Your task to perform on an android device: Clear the shopping cart on costco. Add "usb-a" to the cart on costco Image 0: 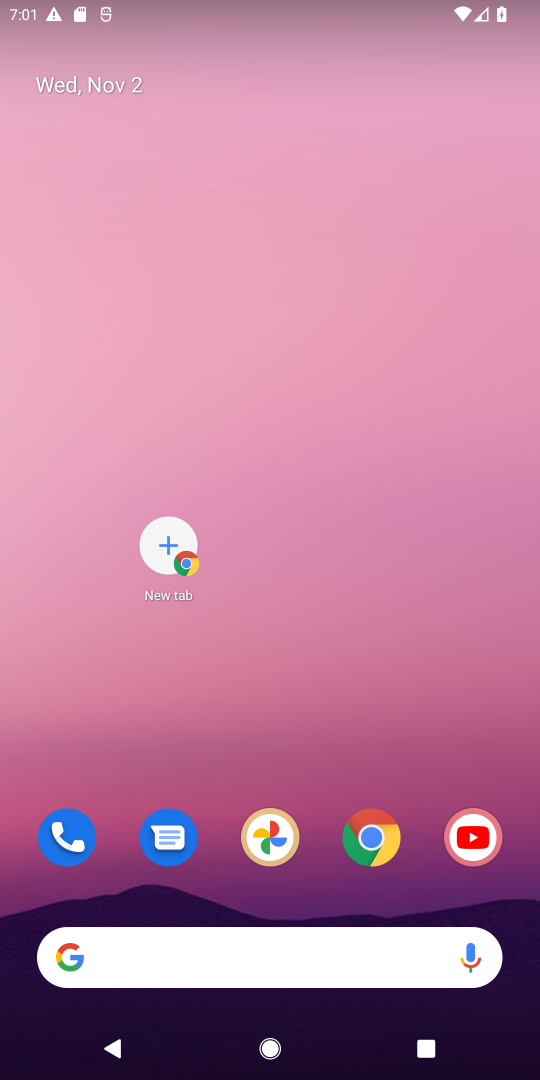
Step 0: click (172, 550)
Your task to perform on an android device: Clear the shopping cart on costco. Add "usb-a" to the cart on costco Image 1: 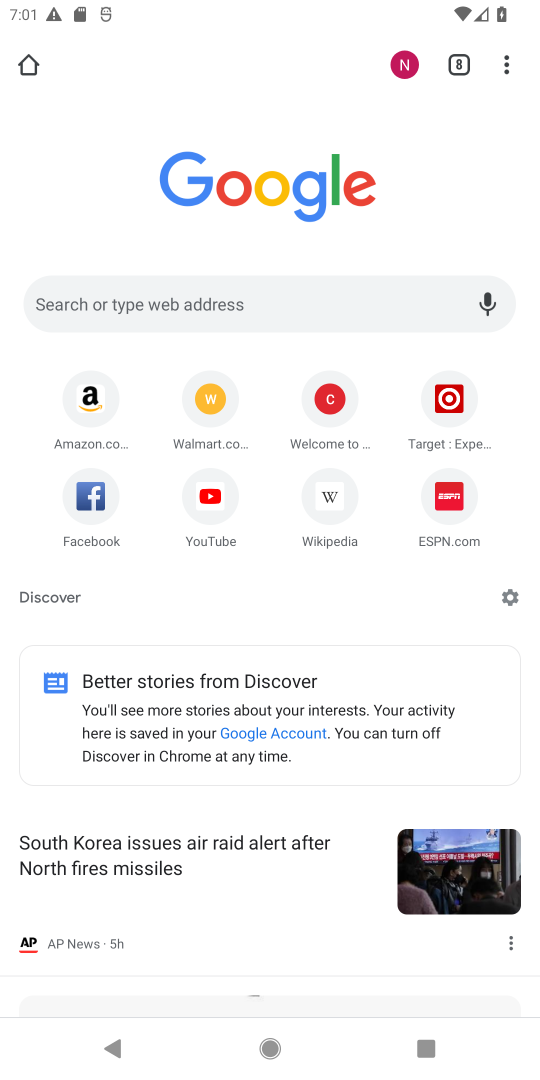
Step 1: click (304, 311)
Your task to perform on an android device: Clear the shopping cart on costco. Add "usb-a" to the cart on costco Image 2: 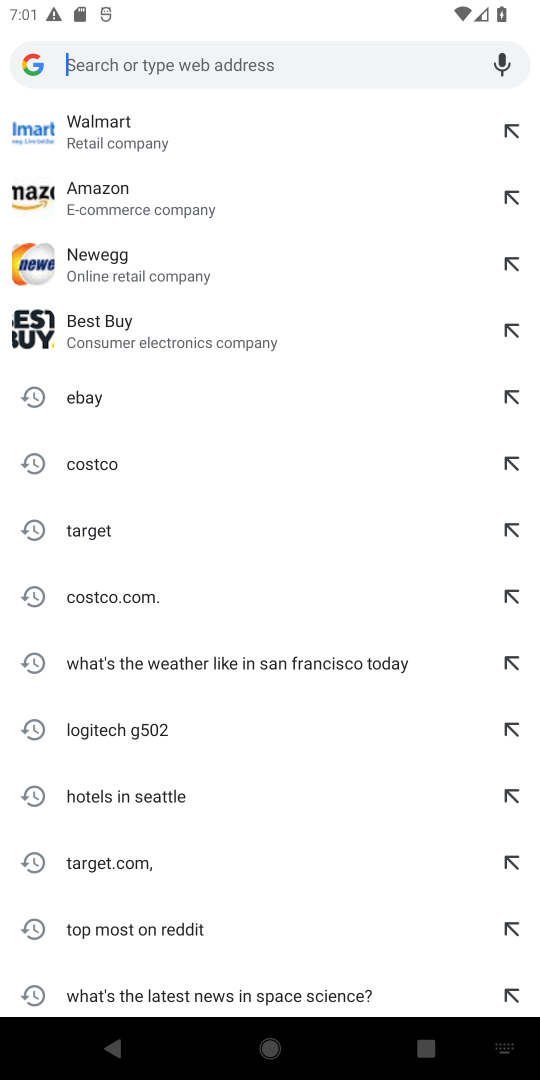
Step 2: type "costco"
Your task to perform on an android device: Clear the shopping cart on costco. Add "usb-a" to the cart on costco Image 3: 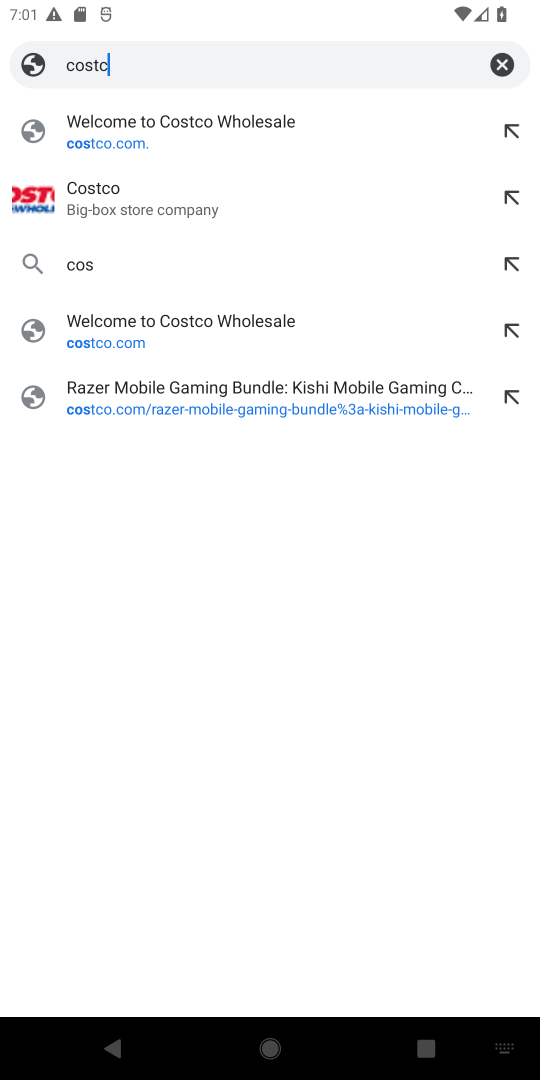
Step 3: type ""
Your task to perform on an android device: Clear the shopping cart on costco. Add "usb-a" to the cart on costco Image 4: 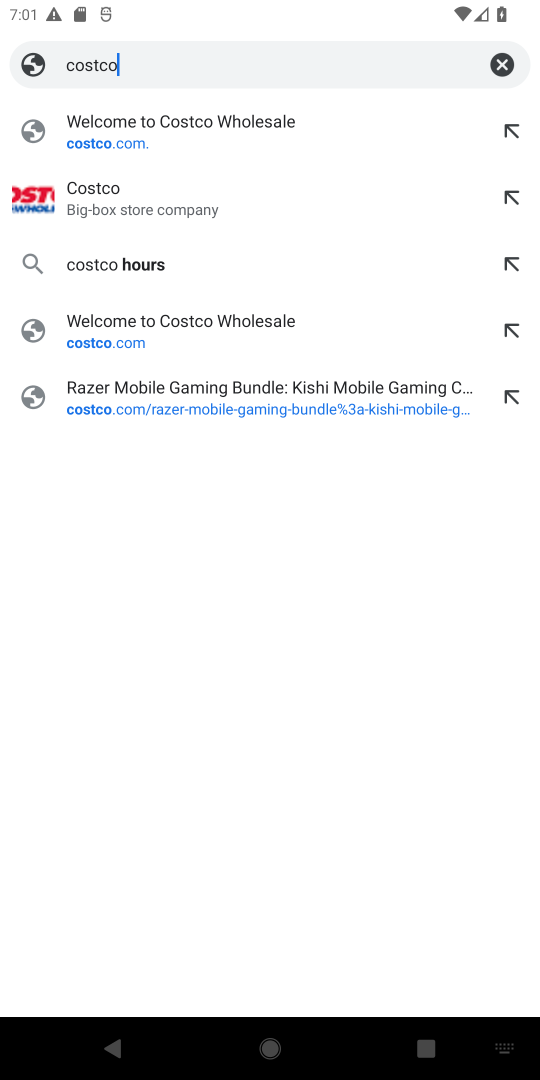
Step 4: click (201, 128)
Your task to perform on an android device: Clear the shopping cart on costco. Add "usb-a" to the cart on costco Image 5: 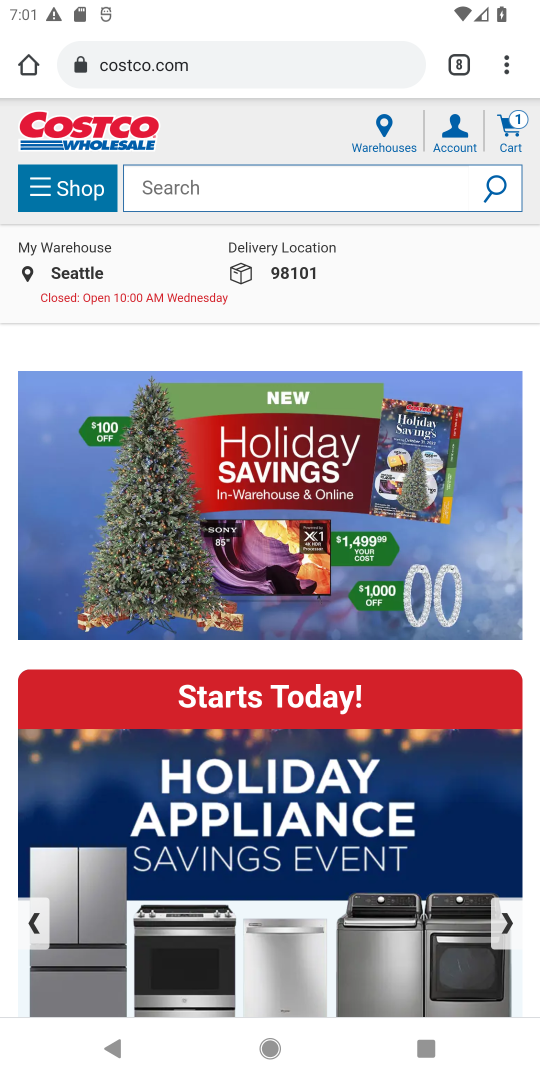
Step 5: click (507, 130)
Your task to perform on an android device: Clear the shopping cart on costco. Add "usb-a" to the cart on costco Image 6: 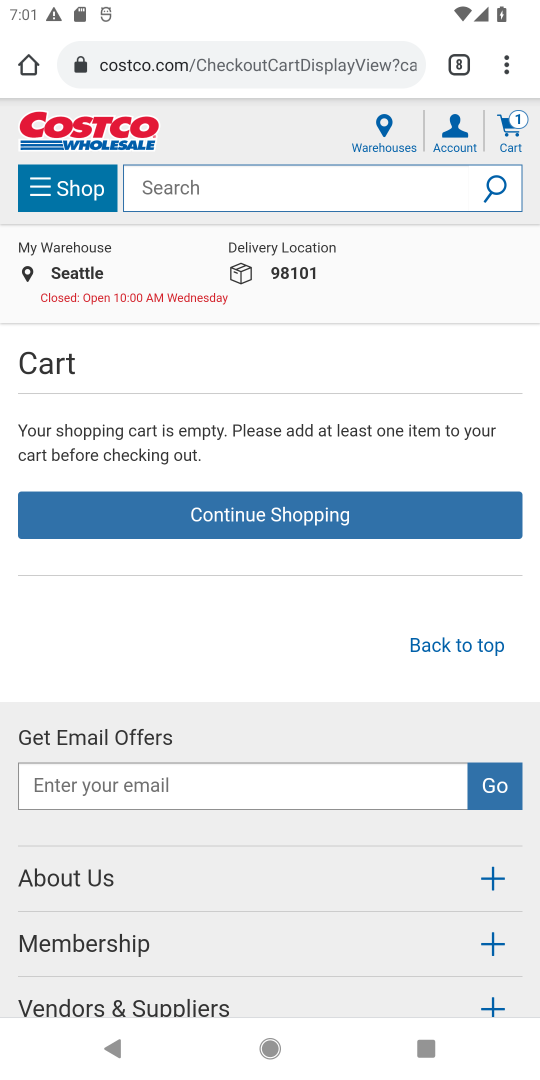
Step 6: drag from (334, 642) to (431, 1056)
Your task to perform on an android device: Clear the shopping cart on costco. Add "usb-a" to the cart on costco Image 7: 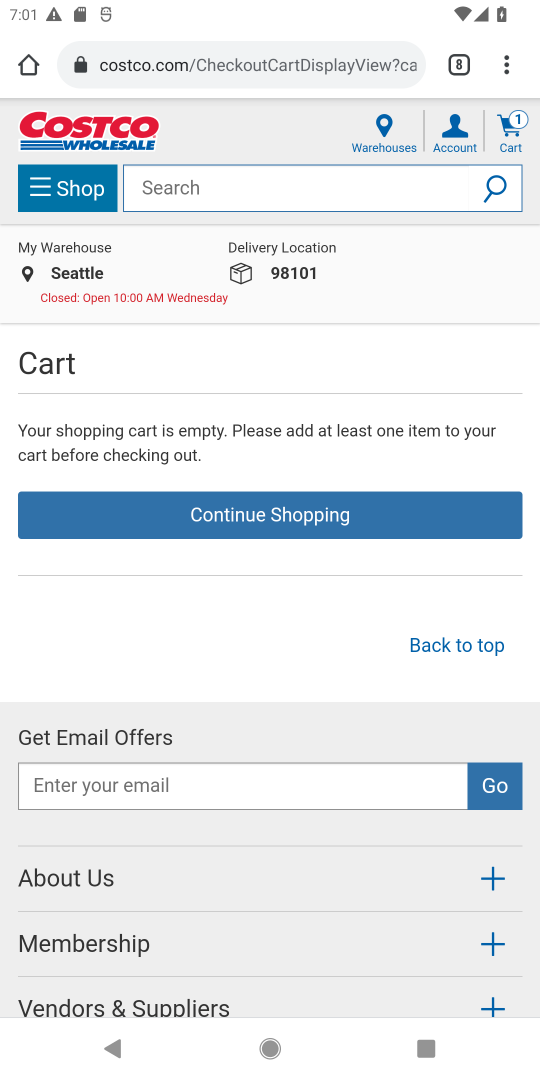
Step 7: click (295, 519)
Your task to perform on an android device: Clear the shopping cart on costco. Add "usb-a" to the cart on costco Image 8: 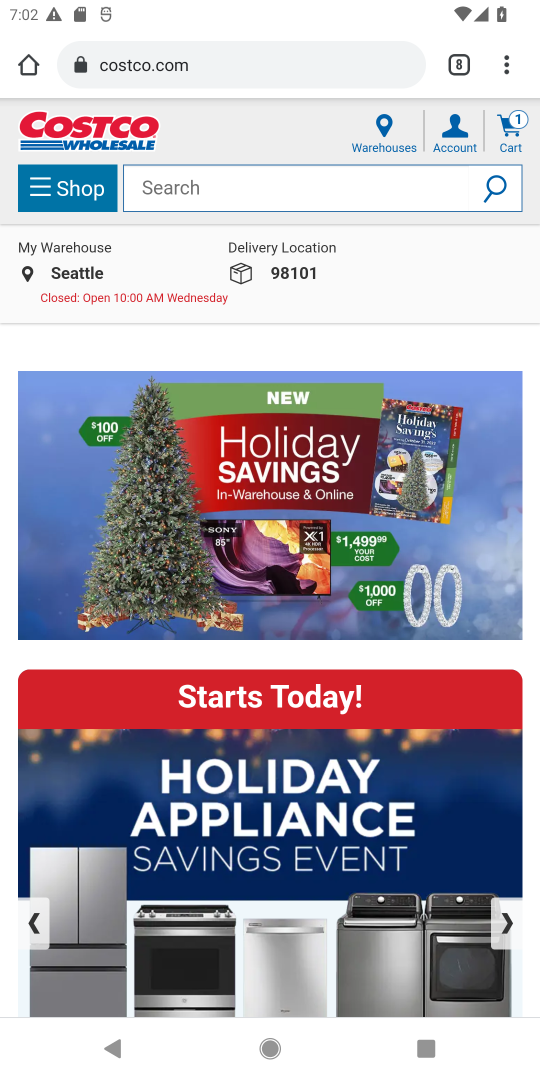
Step 8: click (260, 198)
Your task to perform on an android device: Clear the shopping cart on costco. Add "usb-a" to the cart on costco Image 9: 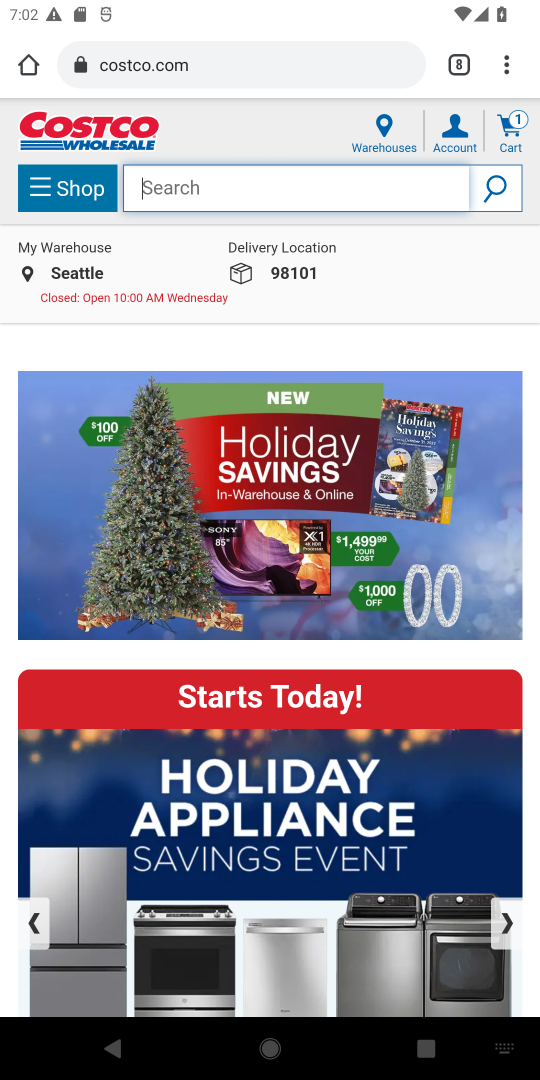
Step 9: type "usb-a"
Your task to perform on an android device: Clear the shopping cart on costco. Add "usb-a" to the cart on costco Image 10: 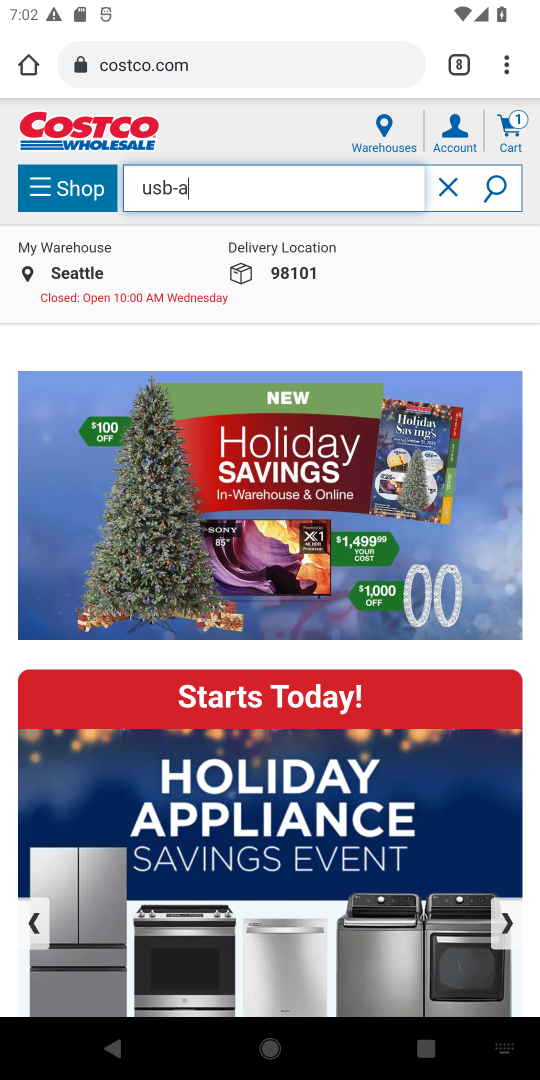
Step 10: type ""
Your task to perform on an android device: Clear the shopping cart on costco. Add "usb-a" to the cart on costco Image 11: 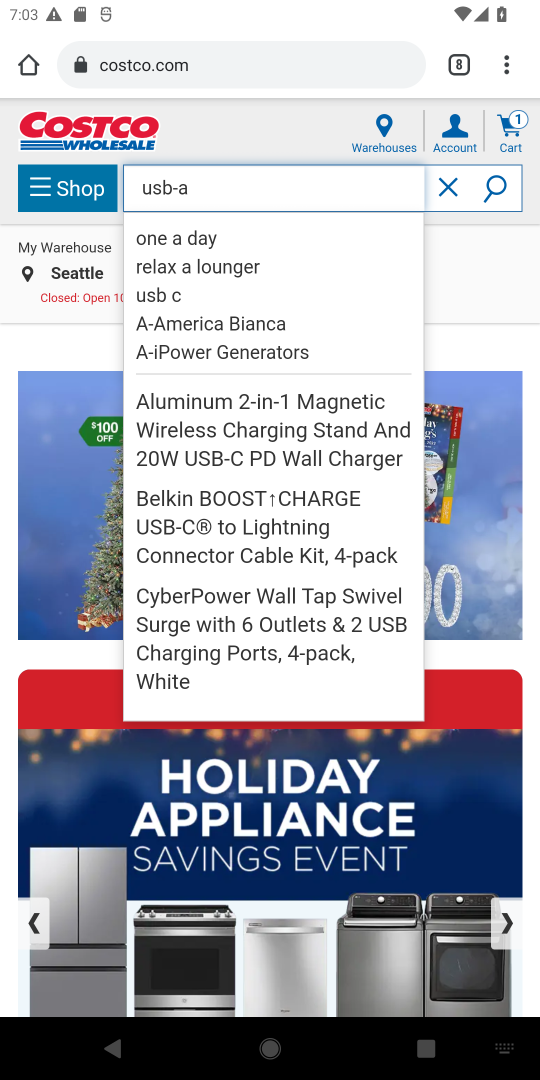
Step 11: click (177, 303)
Your task to perform on an android device: Clear the shopping cart on costco. Add "usb-a" to the cart on costco Image 12: 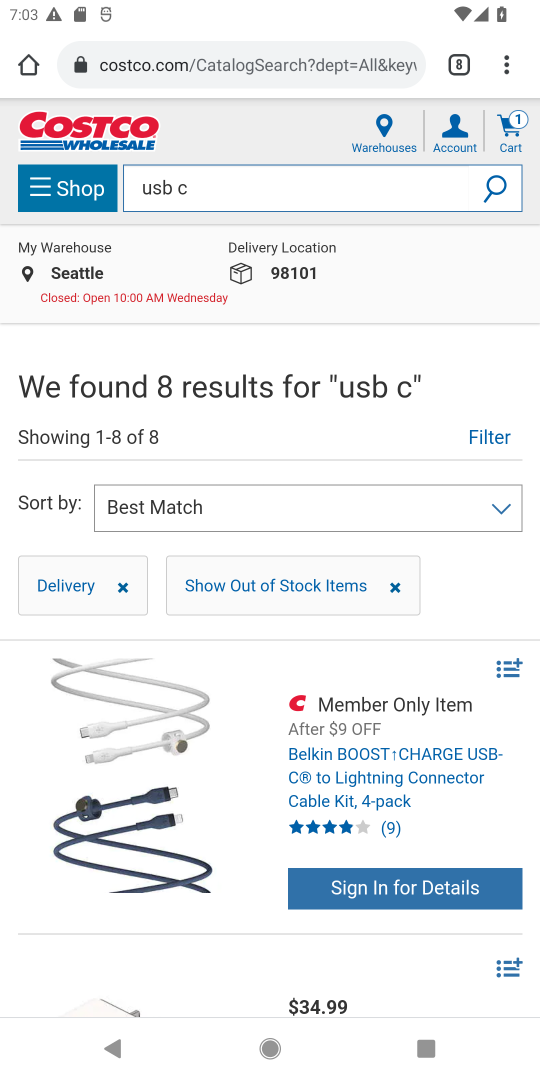
Step 12: drag from (192, 766) to (255, 449)
Your task to perform on an android device: Clear the shopping cart on costco. Add "usb-a" to the cart on costco Image 13: 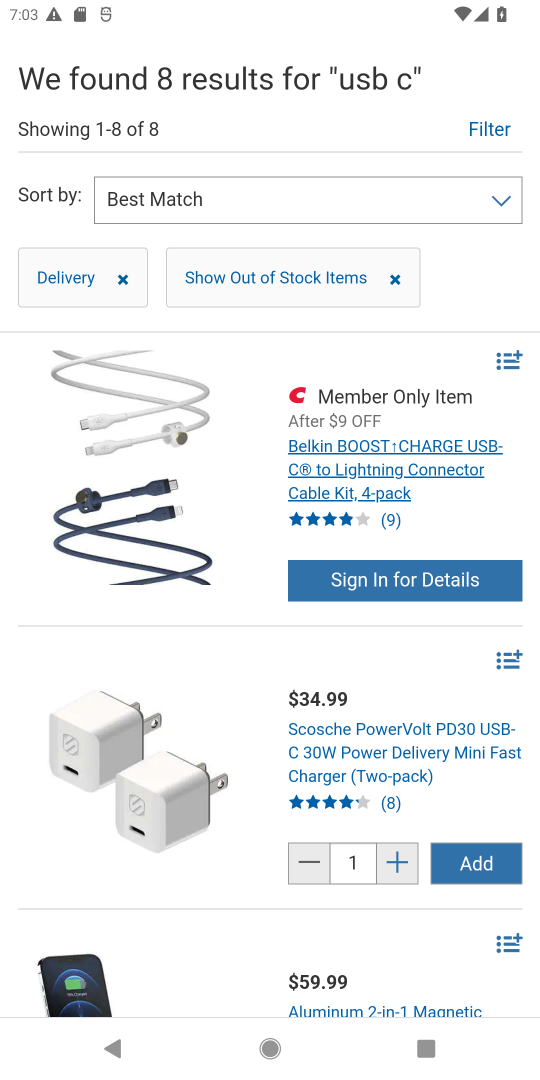
Step 13: drag from (316, 883) to (370, 584)
Your task to perform on an android device: Clear the shopping cart on costco. Add "usb-a" to the cart on costco Image 14: 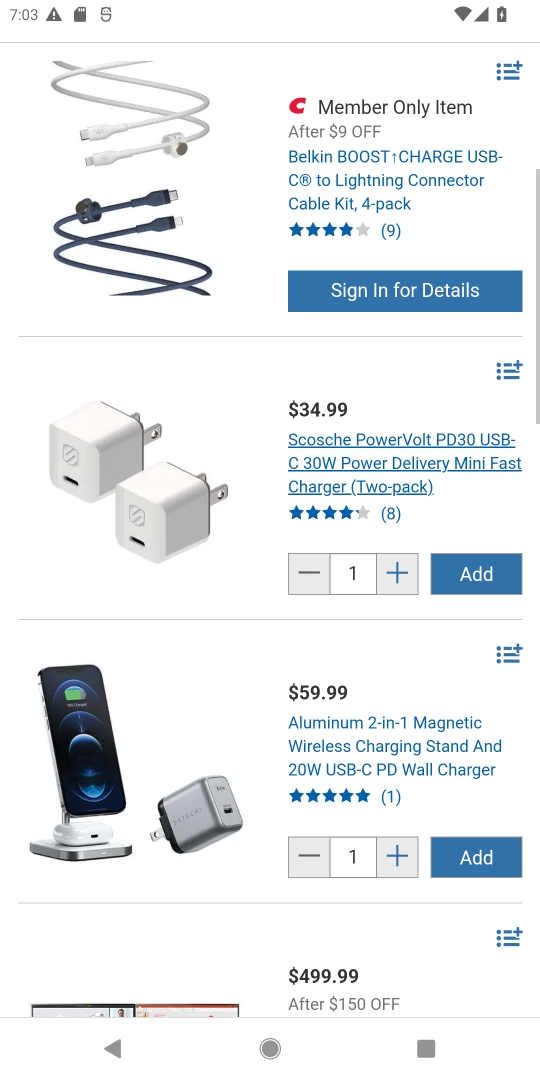
Step 14: drag from (316, 796) to (379, 542)
Your task to perform on an android device: Clear the shopping cart on costco. Add "usb-a" to the cart on costco Image 15: 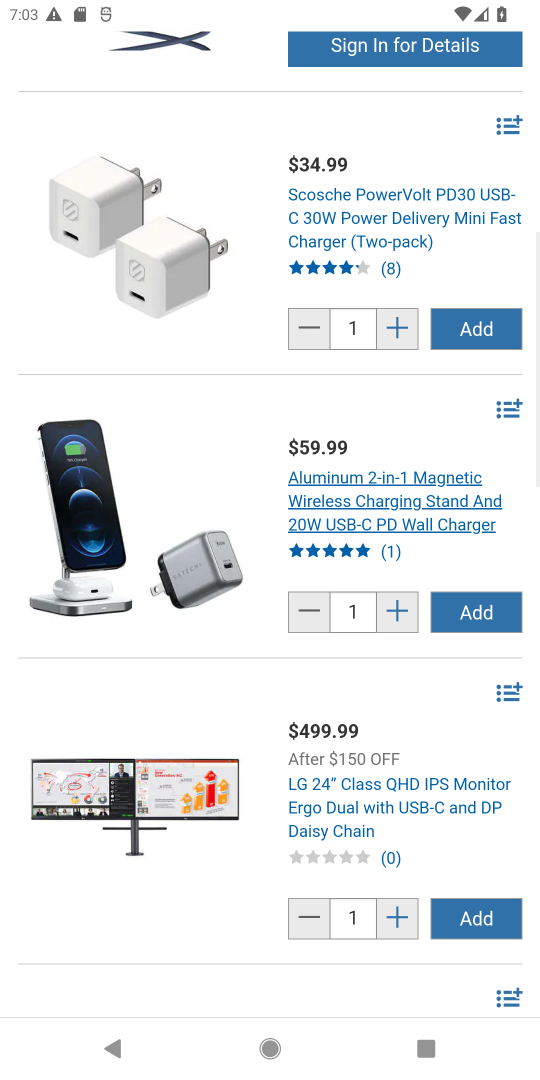
Step 15: drag from (269, 832) to (347, 600)
Your task to perform on an android device: Clear the shopping cart on costco. Add "usb-a" to the cart on costco Image 16: 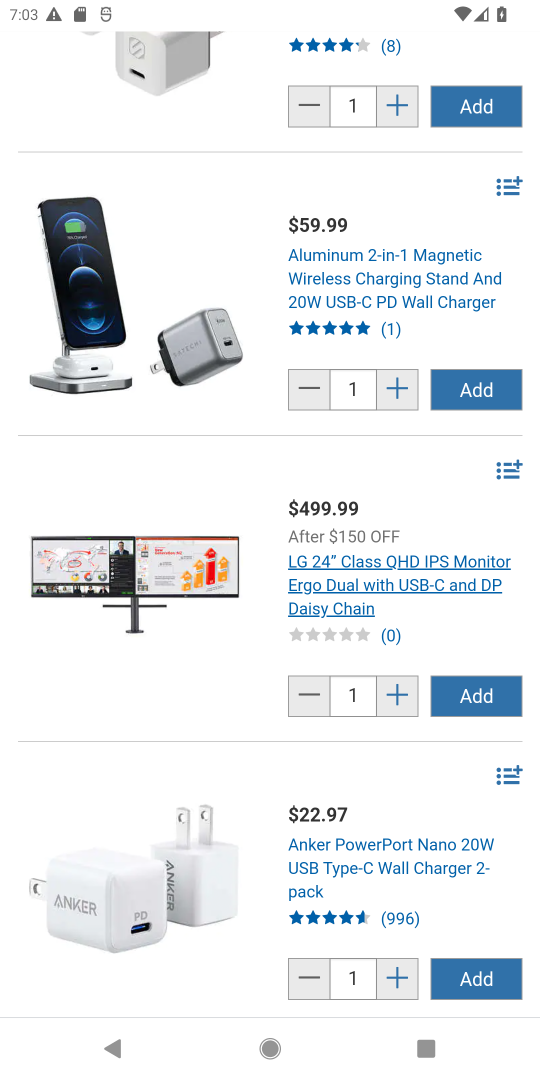
Step 16: click (404, 988)
Your task to perform on an android device: Clear the shopping cart on costco. Add "usb-a" to the cart on costco Image 17: 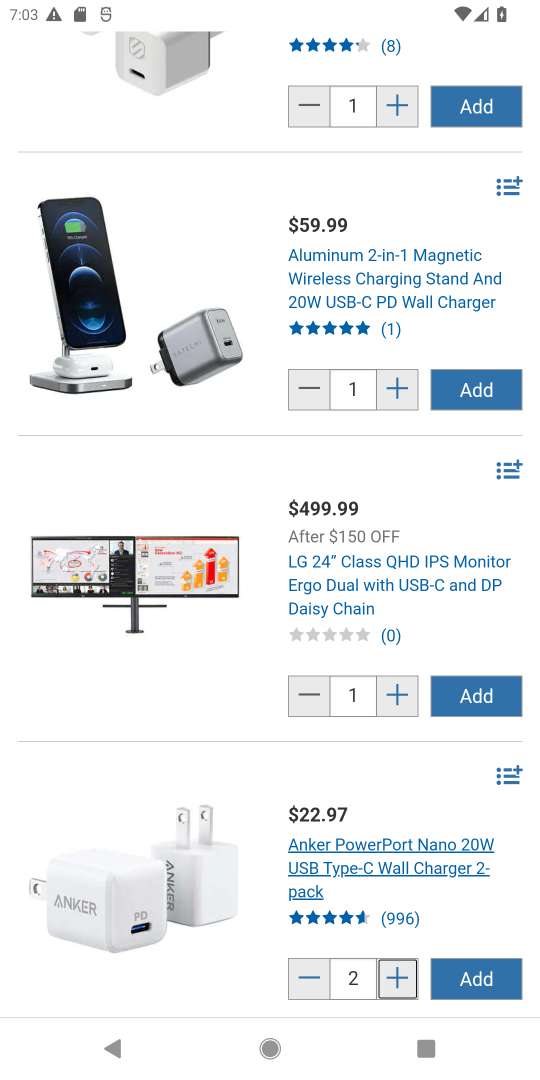
Step 17: click (311, 989)
Your task to perform on an android device: Clear the shopping cart on costco. Add "usb-a" to the cart on costco Image 18: 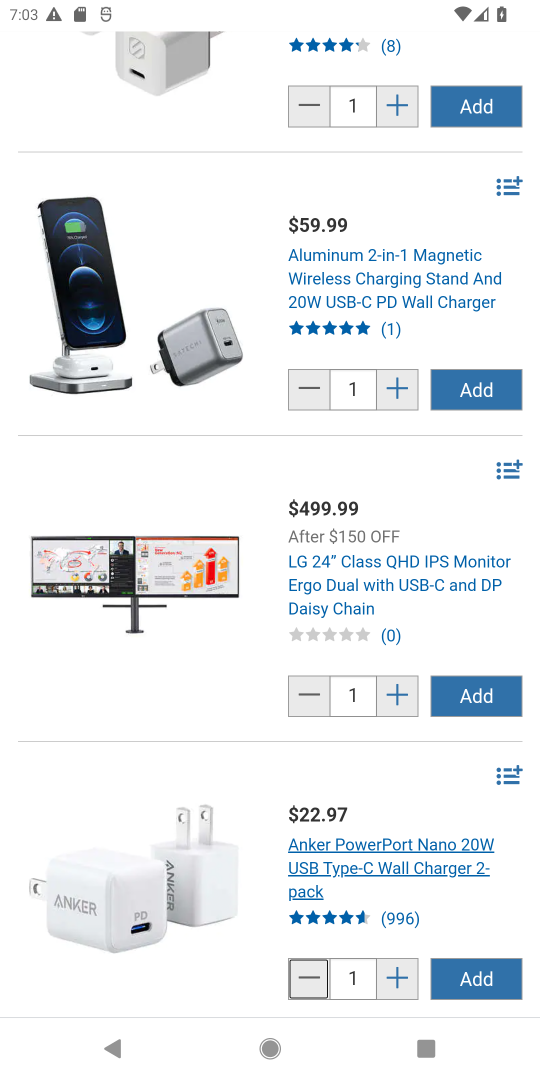
Step 18: drag from (279, 545) to (263, 1034)
Your task to perform on an android device: Clear the shopping cart on costco. Add "usb-a" to the cart on costco Image 19: 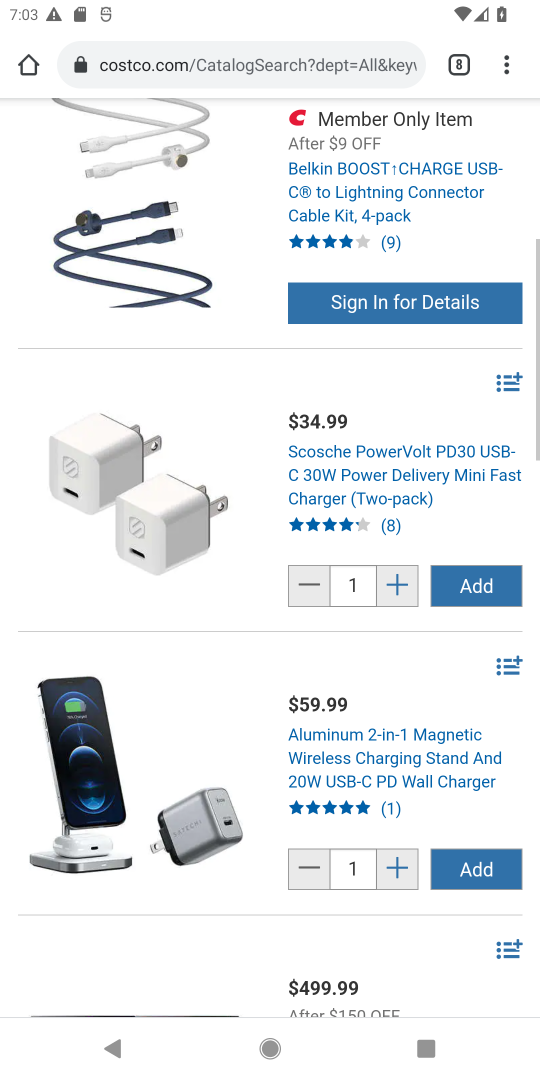
Step 19: drag from (311, 511) to (277, 1077)
Your task to perform on an android device: Clear the shopping cart on costco. Add "usb-a" to the cart on costco Image 20: 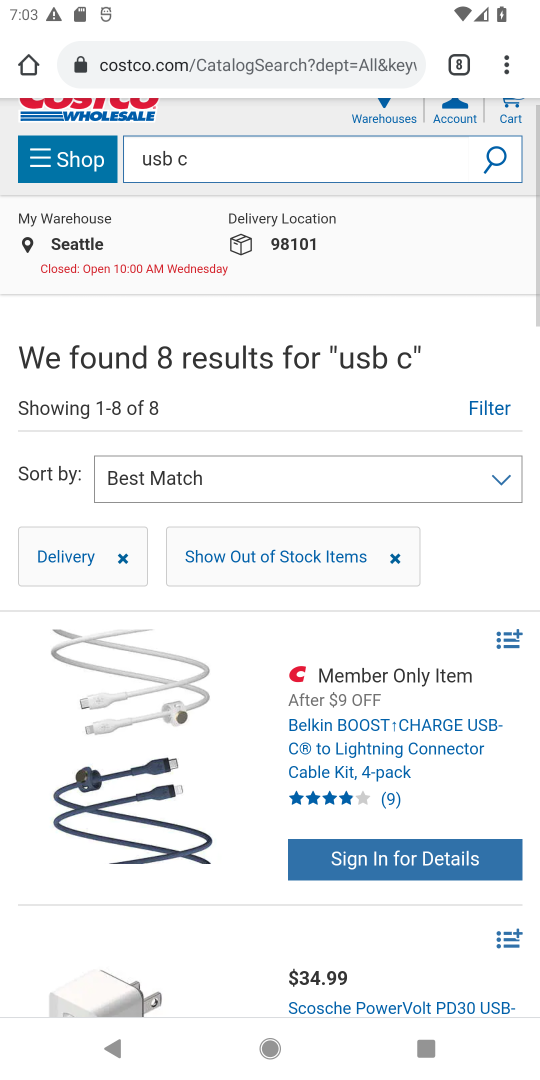
Step 20: drag from (331, 632) to (333, 1056)
Your task to perform on an android device: Clear the shopping cart on costco. Add "usb-a" to the cart on costco Image 21: 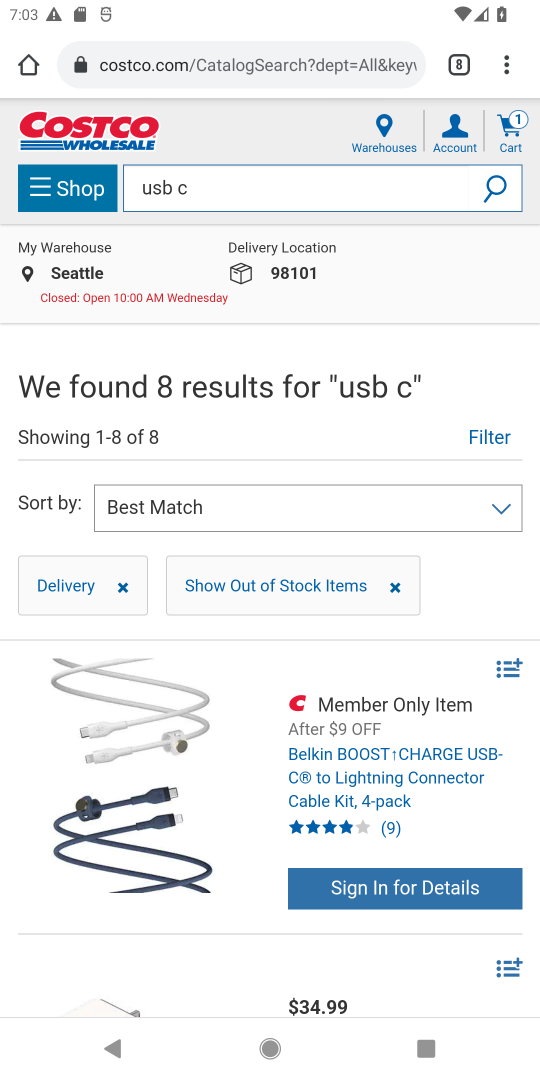
Step 21: click (510, 131)
Your task to perform on an android device: Clear the shopping cart on costco. Add "usb-a" to the cart on costco Image 22: 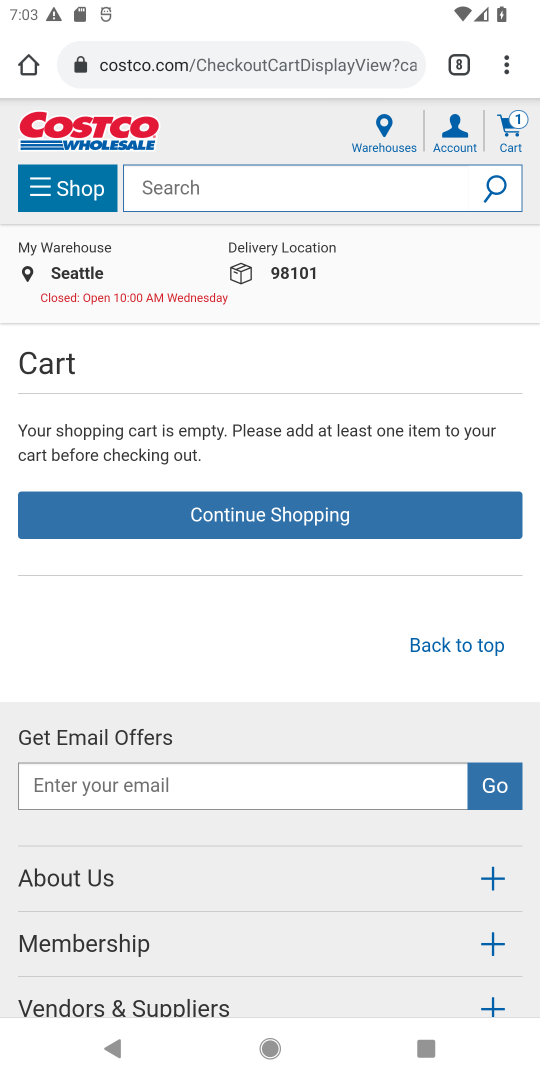
Step 22: press back button
Your task to perform on an android device: Clear the shopping cart on costco. Add "usb-a" to the cart on costco Image 23: 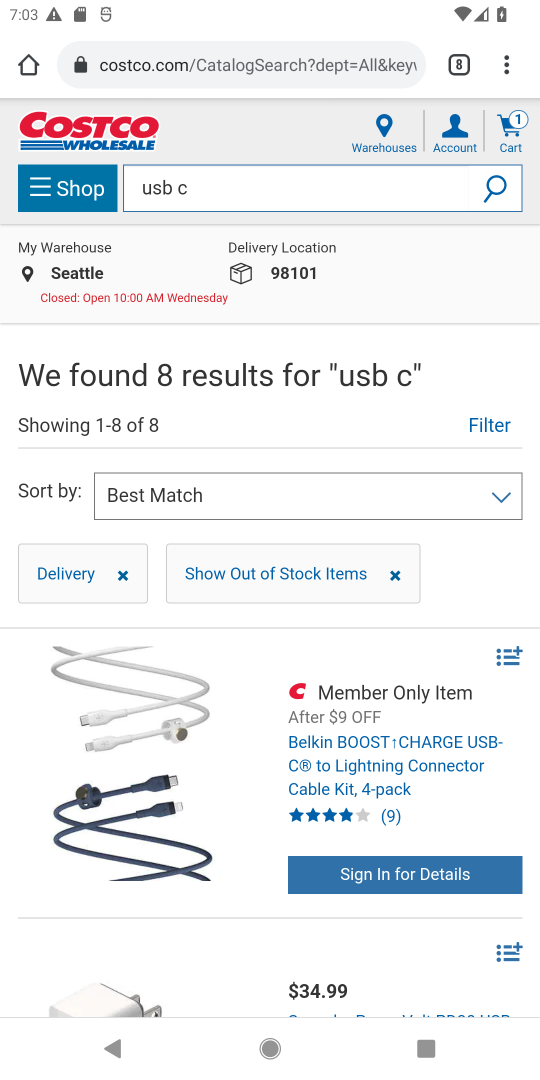
Step 23: drag from (252, 787) to (264, 453)
Your task to perform on an android device: Clear the shopping cart on costco. Add "usb-a" to the cart on costco Image 24: 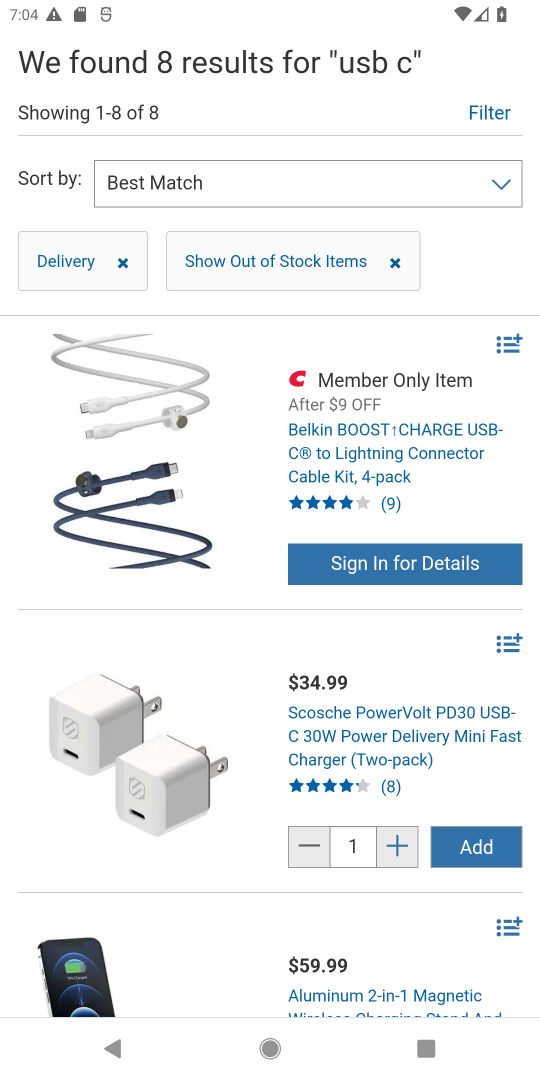
Step 24: drag from (307, 874) to (399, 456)
Your task to perform on an android device: Clear the shopping cart on costco. Add "usb-a" to the cart on costco Image 25: 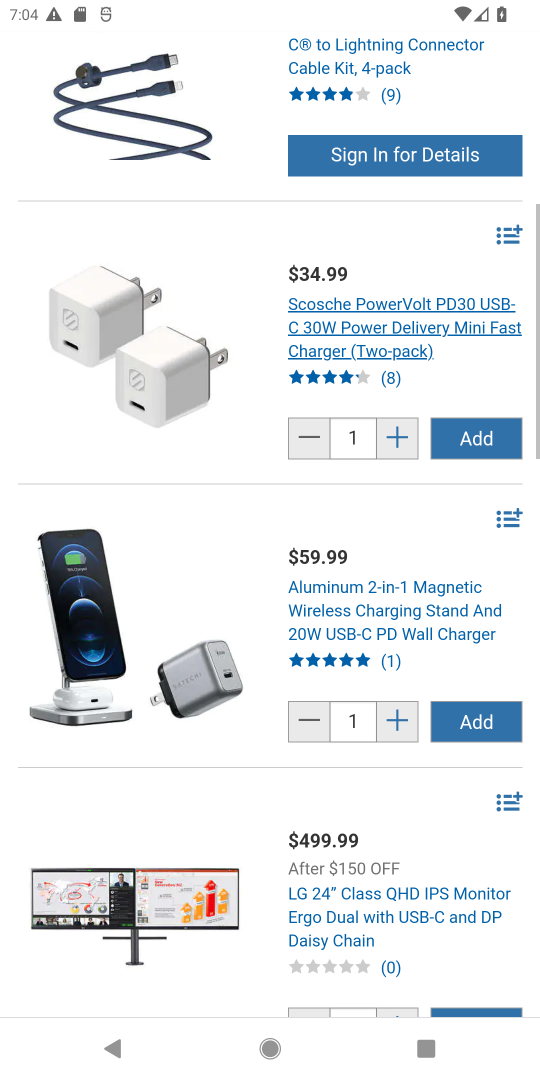
Step 25: drag from (323, 885) to (366, 453)
Your task to perform on an android device: Clear the shopping cart on costco. Add "usb-a" to the cart on costco Image 26: 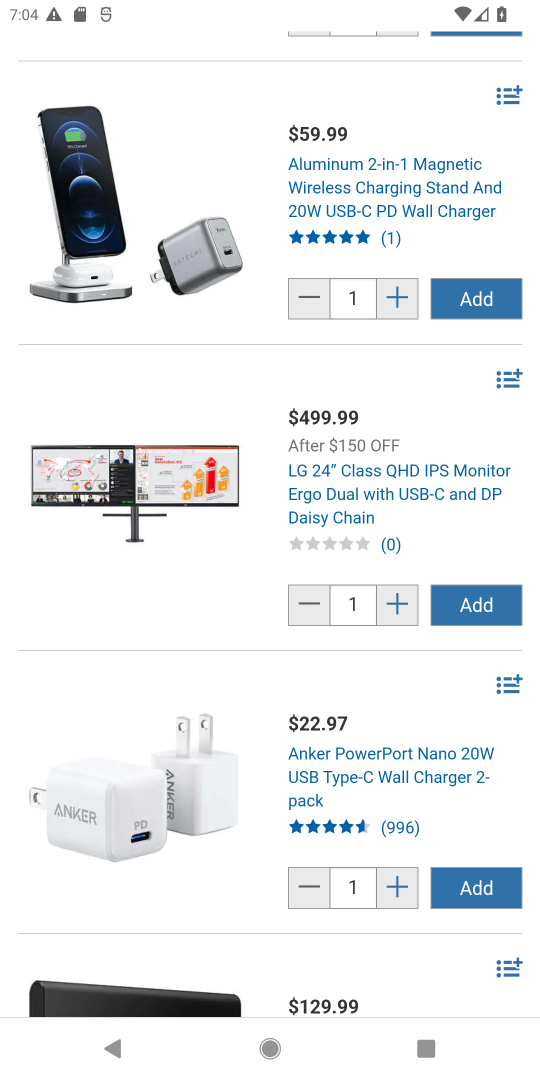
Step 26: click (334, 743)
Your task to perform on an android device: Clear the shopping cart on costco. Add "usb-a" to the cart on costco Image 27: 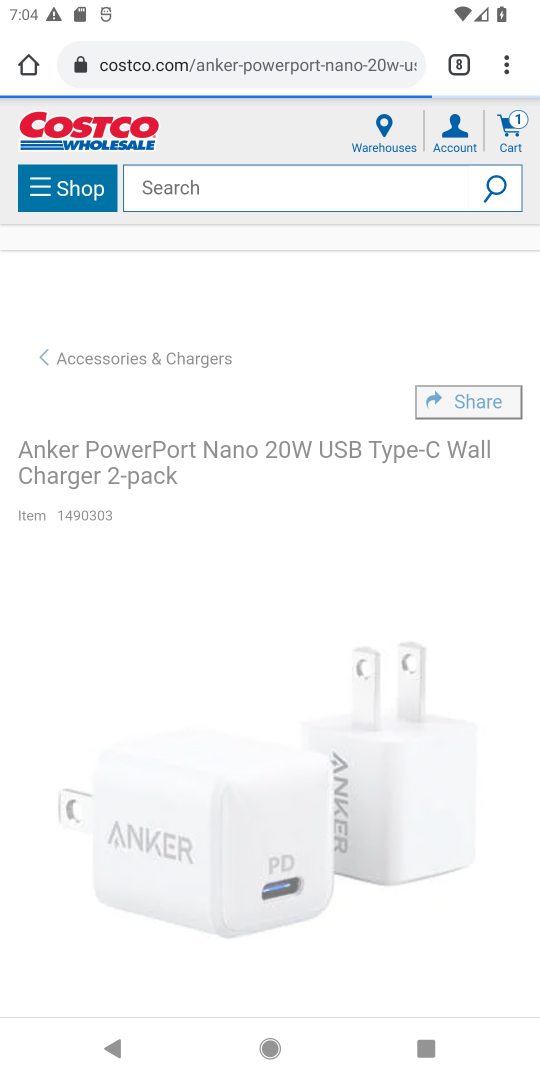
Step 27: drag from (233, 836) to (297, 362)
Your task to perform on an android device: Clear the shopping cart on costco. Add "usb-a" to the cart on costco Image 28: 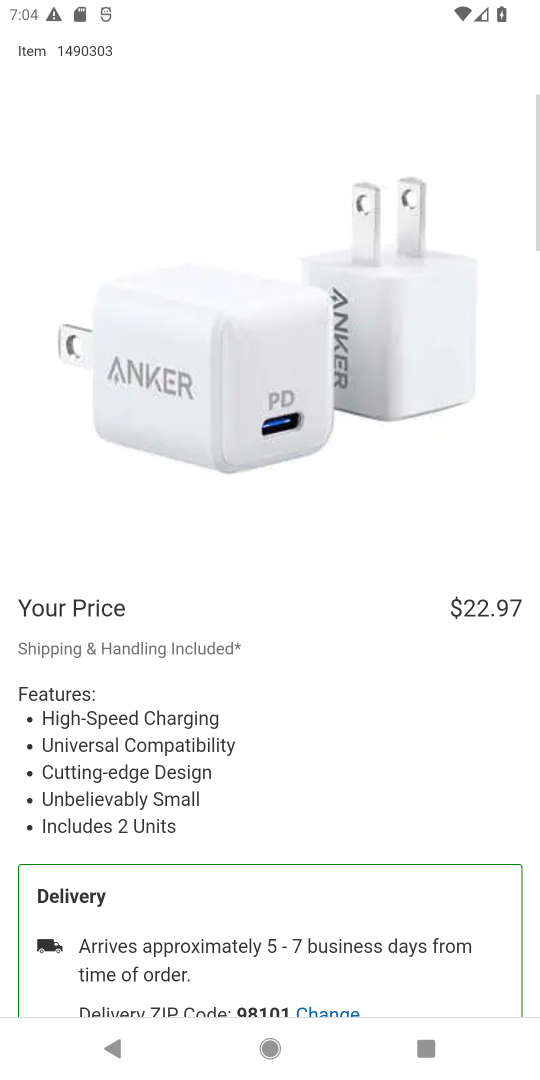
Step 28: drag from (260, 776) to (309, 346)
Your task to perform on an android device: Clear the shopping cart on costco. Add "usb-a" to the cart on costco Image 29: 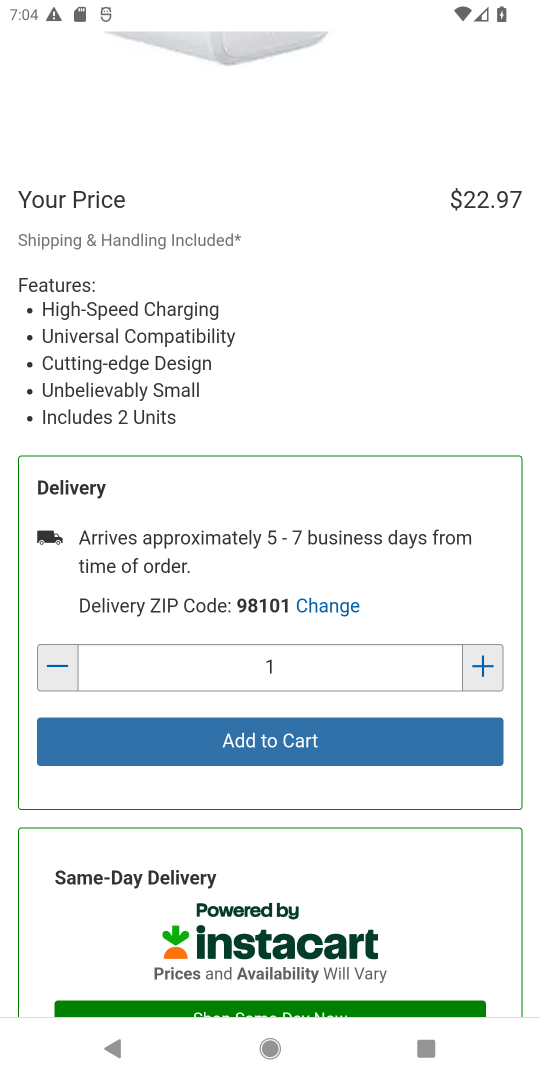
Step 29: click (283, 752)
Your task to perform on an android device: Clear the shopping cart on costco. Add "usb-a" to the cart on costco Image 30: 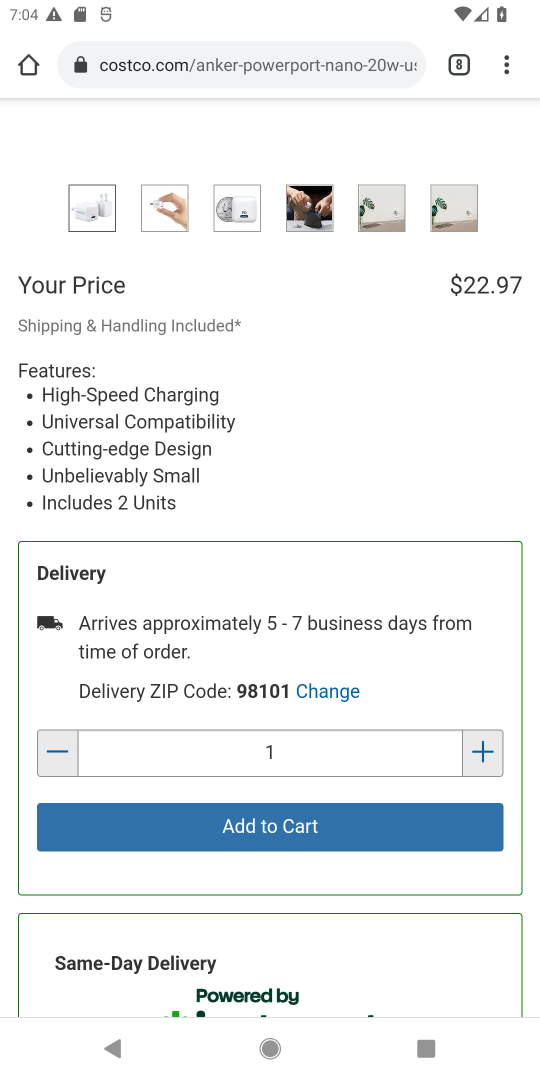
Step 30: drag from (292, 436) to (293, 1014)
Your task to perform on an android device: Clear the shopping cart on costco. Add "usb-a" to the cart on costco Image 31: 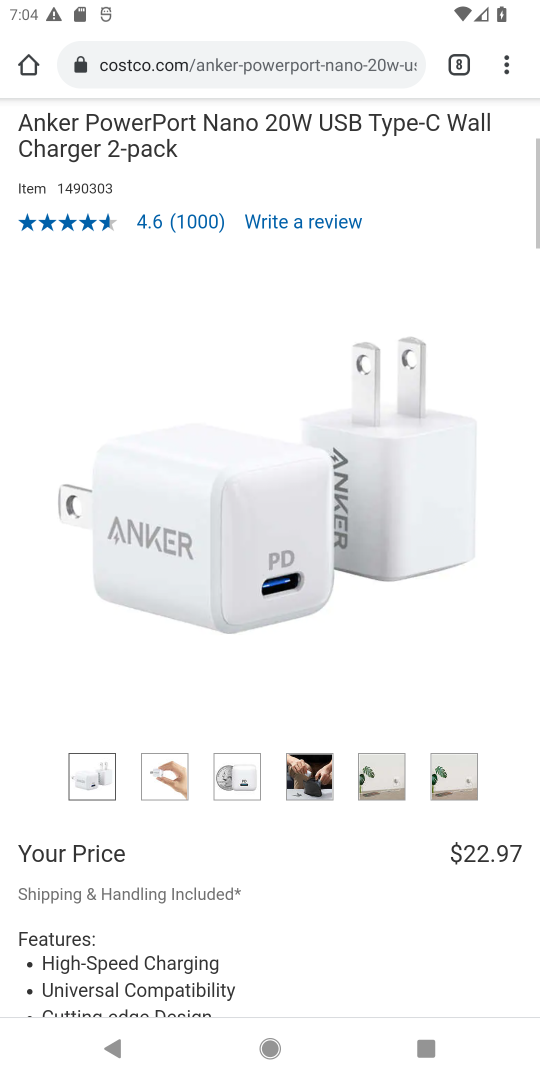
Step 31: drag from (333, 440) to (296, 1061)
Your task to perform on an android device: Clear the shopping cart on costco. Add "usb-a" to the cart on costco Image 32: 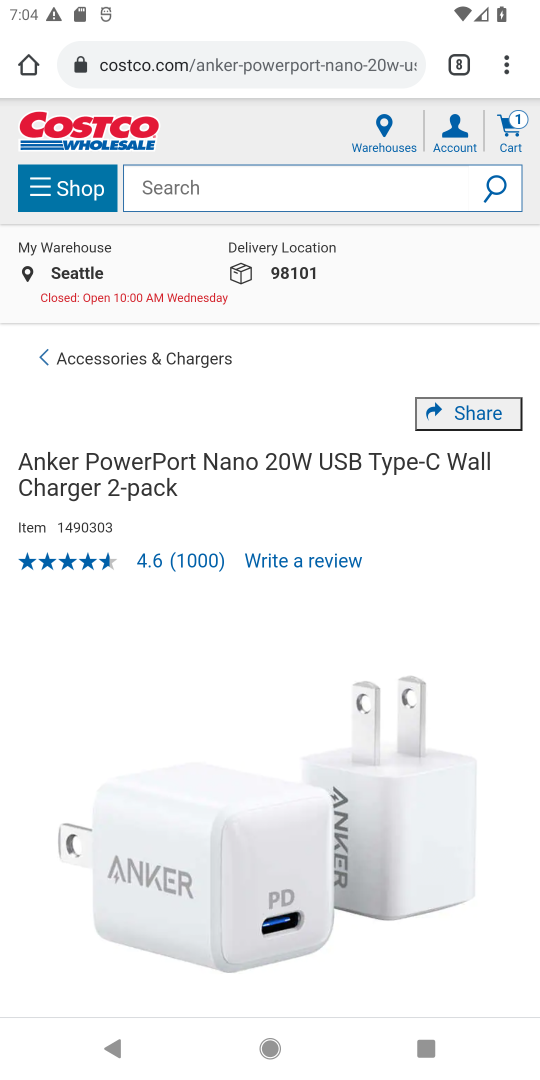
Step 32: click (516, 125)
Your task to perform on an android device: Clear the shopping cart on costco. Add "usb-a" to the cart on costco Image 33: 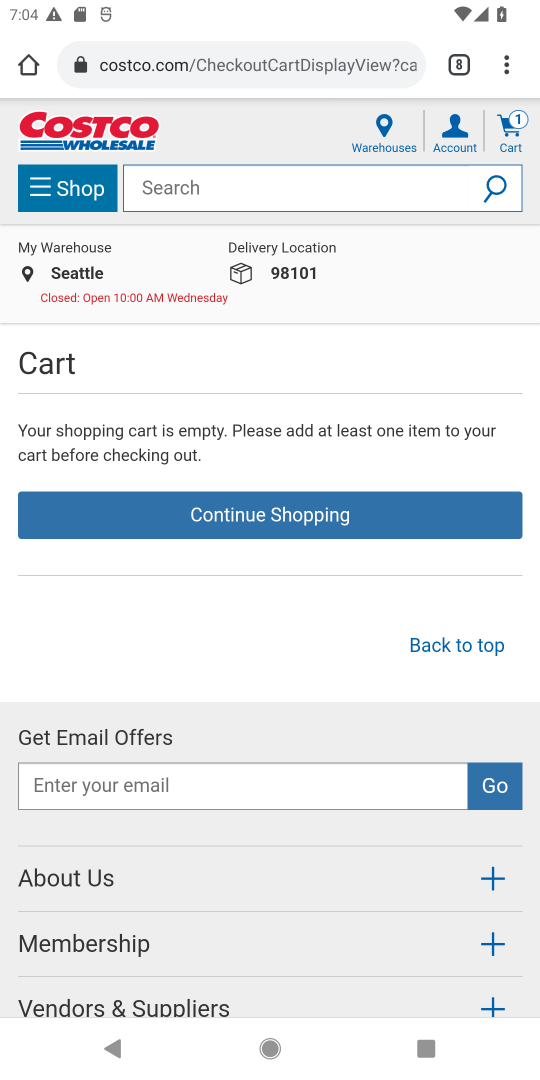
Step 33: press back button
Your task to perform on an android device: Clear the shopping cart on costco. Add "usb-a" to the cart on costco Image 34: 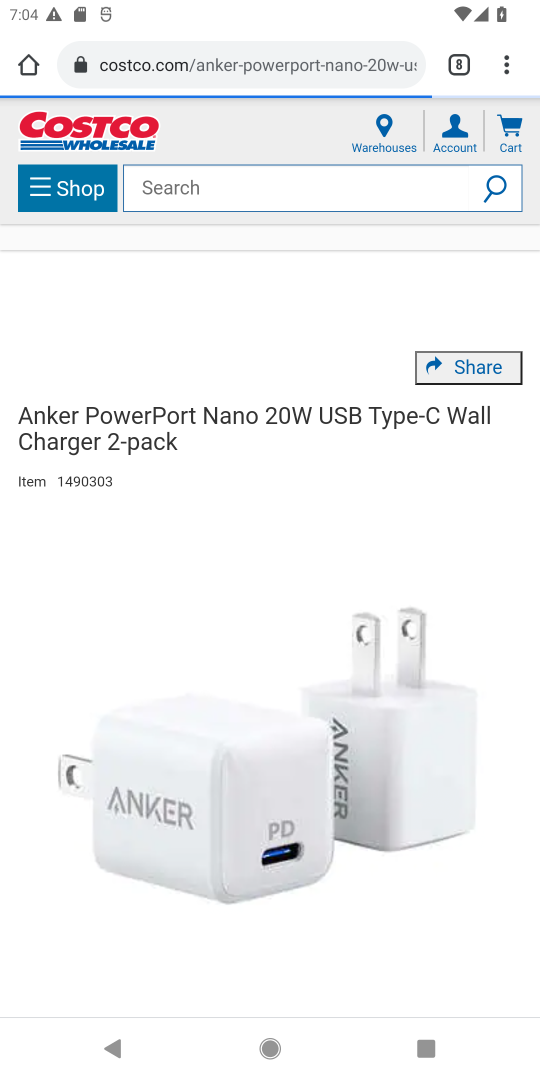
Step 34: drag from (318, 758) to (320, 369)
Your task to perform on an android device: Clear the shopping cart on costco. Add "usb-a" to the cart on costco Image 35: 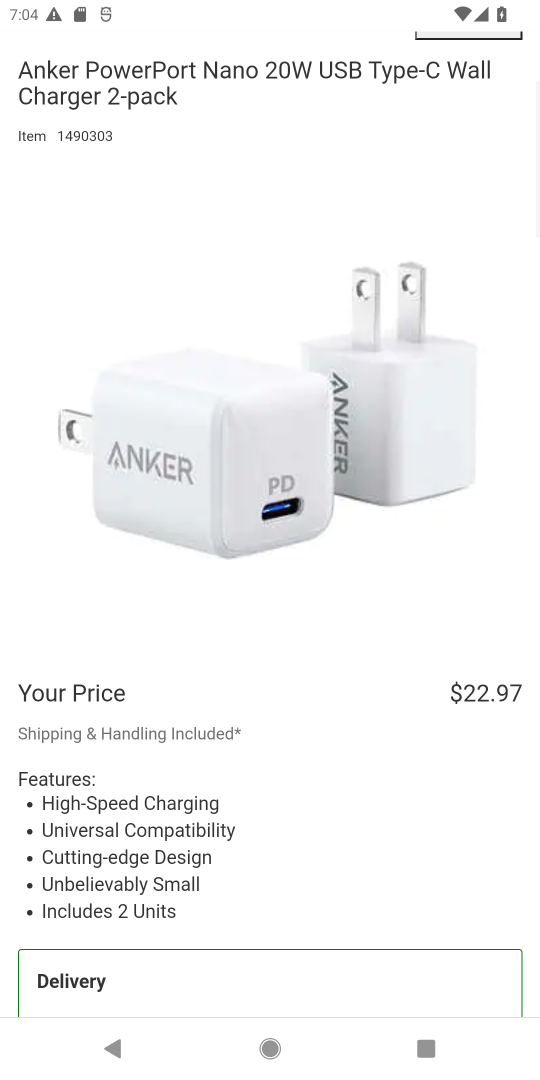
Step 35: drag from (280, 598) to (313, 336)
Your task to perform on an android device: Clear the shopping cart on costco. Add "usb-a" to the cart on costco Image 36: 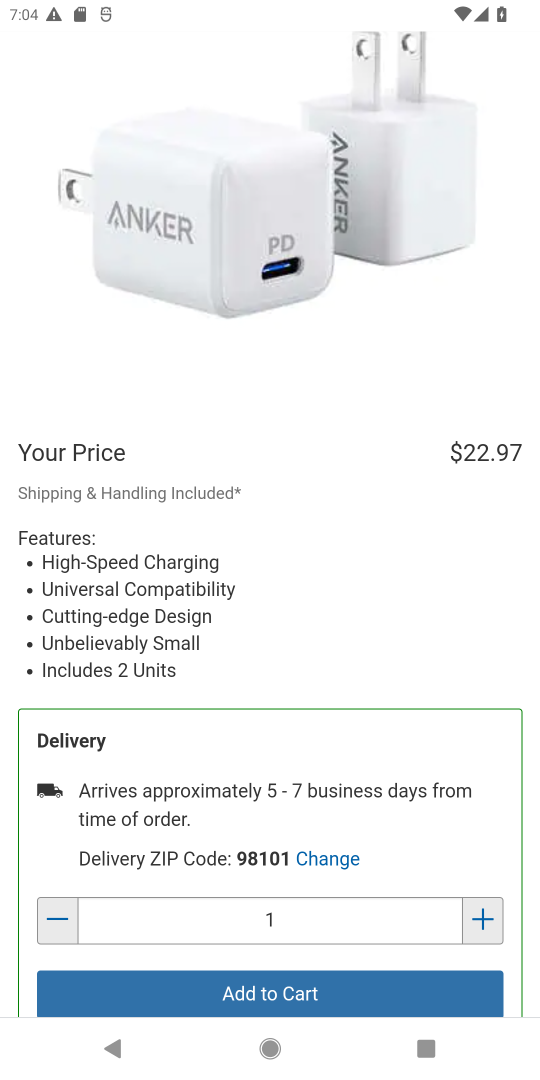
Step 36: drag from (248, 659) to (304, 284)
Your task to perform on an android device: Clear the shopping cart on costco. Add "usb-a" to the cart on costco Image 37: 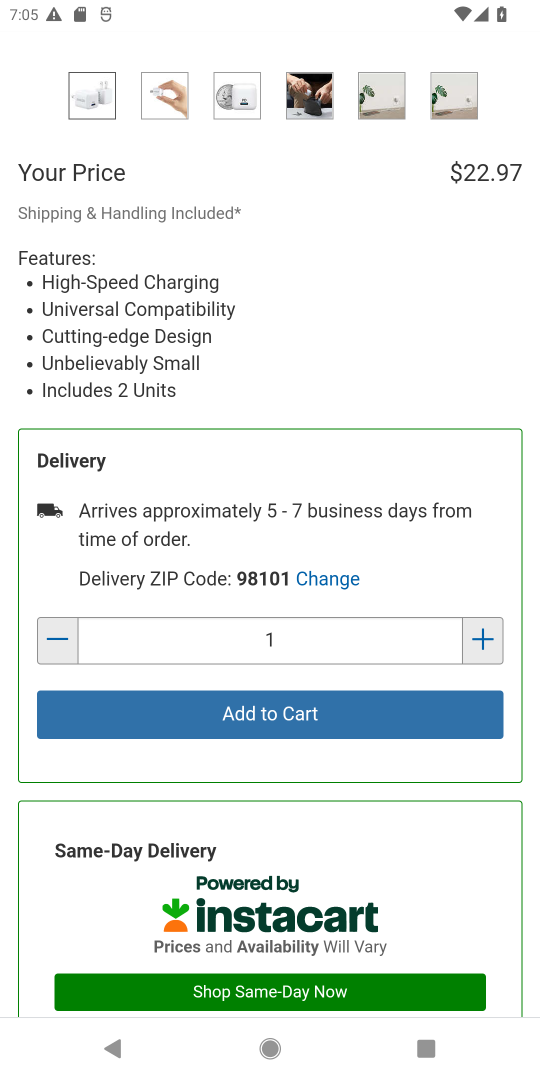
Step 37: click (278, 720)
Your task to perform on an android device: Clear the shopping cart on costco. Add "usb-a" to the cart on costco Image 38: 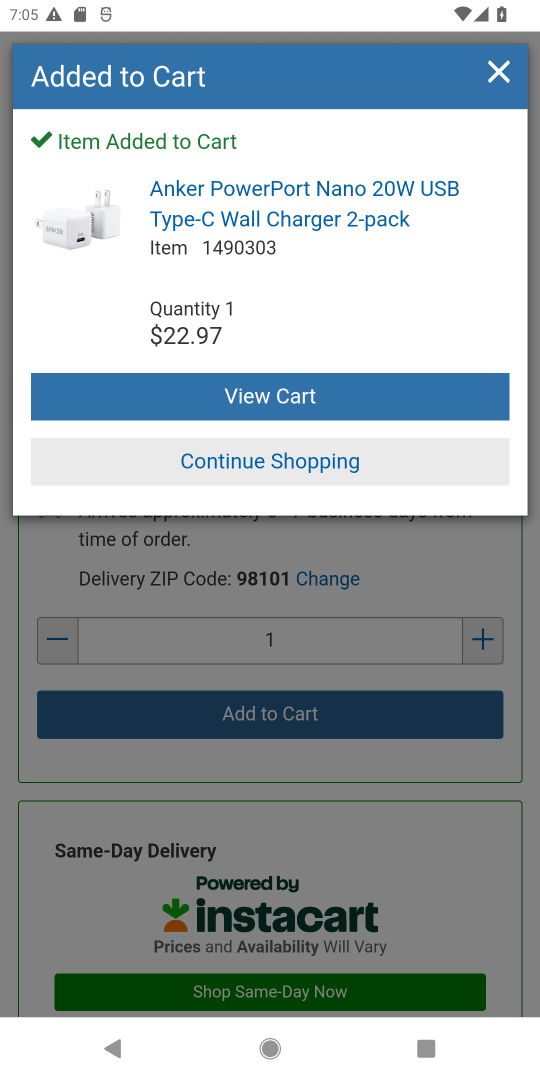
Step 38: click (298, 389)
Your task to perform on an android device: Clear the shopping cart on costco. Add "usb-a" to the cart on costco Image 39: 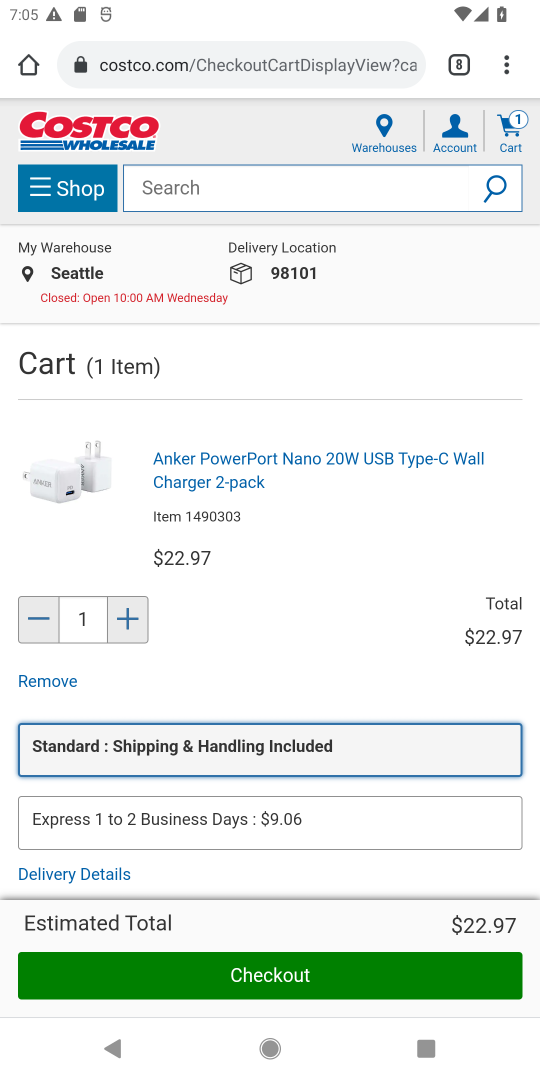
Step 39: click (261, 967)
Your task to perform on an android device: Clear the shopping cart on costco. Add "usb-a" to the cart on costco Image 40: 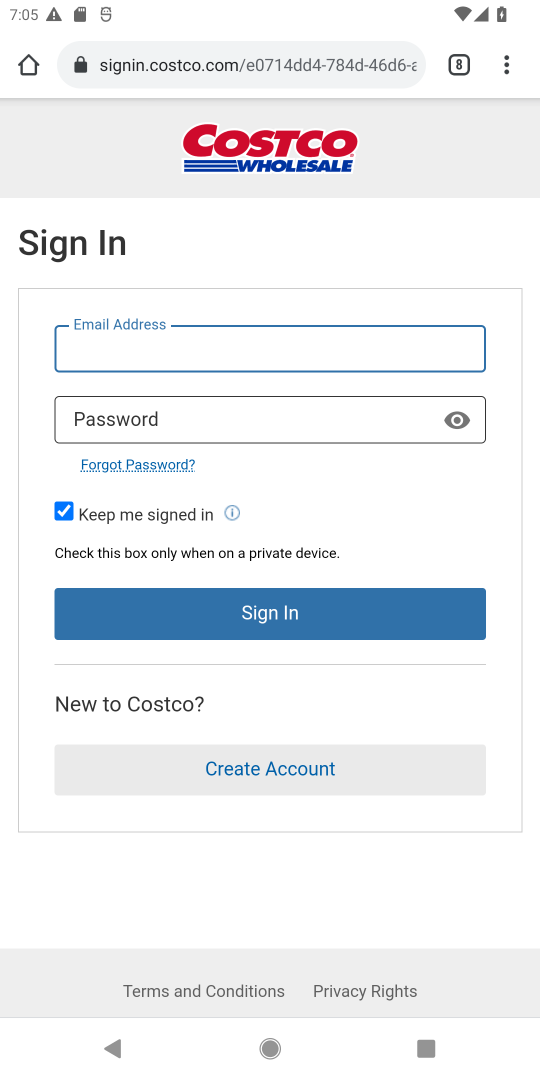
Step 40: task complete